Your task to perform on an android device: When is my next appointment? Image 0: 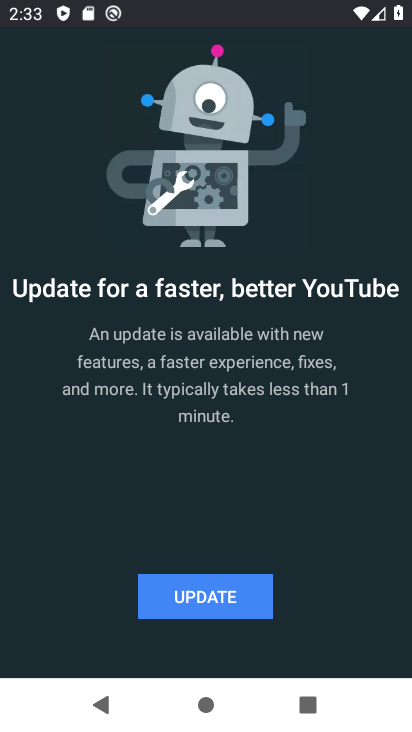
Step 0: press home button
Your task to perform on an android device: When is my next appointment? Image 1: 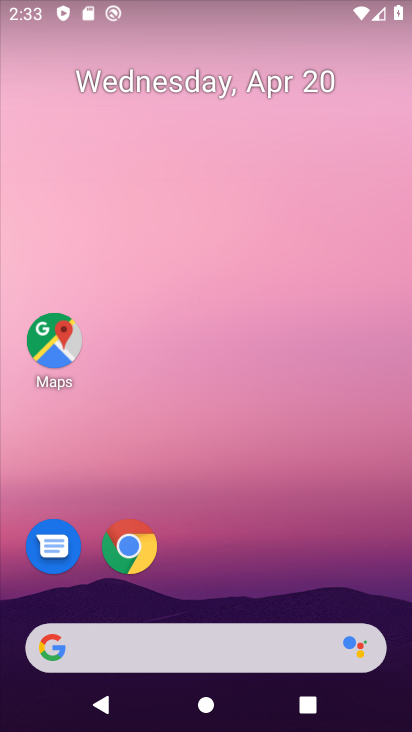
Step 1: drag from (289, 500) to (289, 108)
Your task to perform on an android device: When is my next appointment? Image 2: 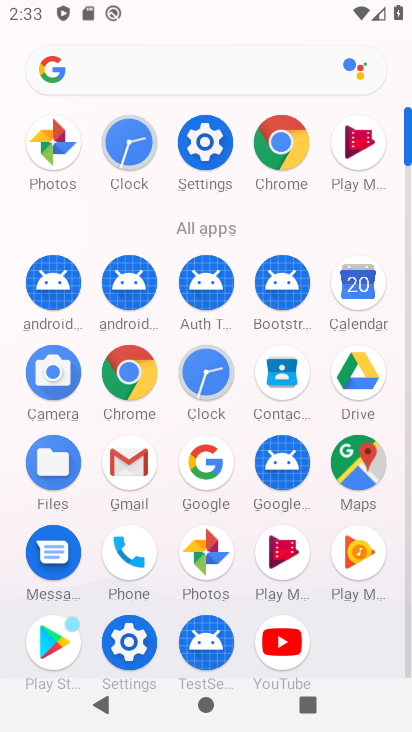
Step 2: click (354, 292)
Your task to perform on an android device: When is my next appointment? Image 3: 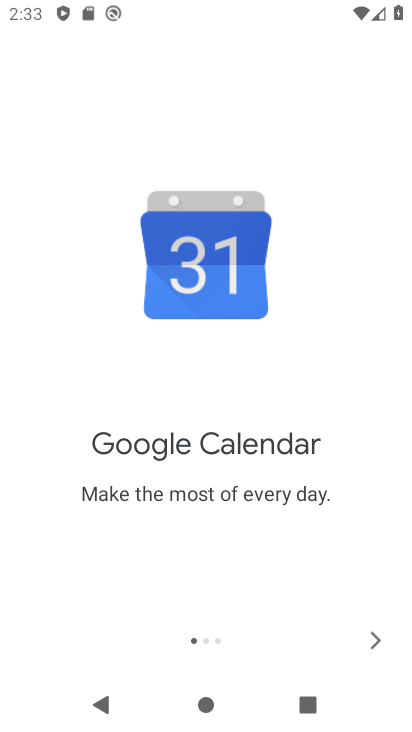
Step 3: click (373, 646)
Your task to perform on an android device: When is my next appointment? Image 4: 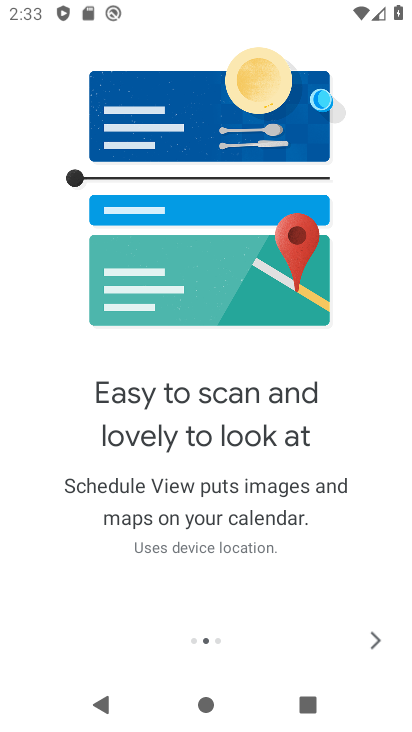
Step 4: click (373, 646)
Your task to perform on an android device: When is my next appointment? Image 5: 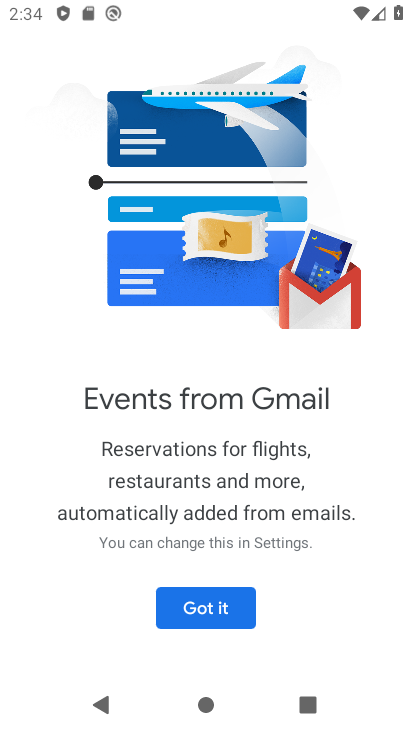
Step 5: click (180, 616)
Your task to perform on an android device: When is my next appointment? Image 6: 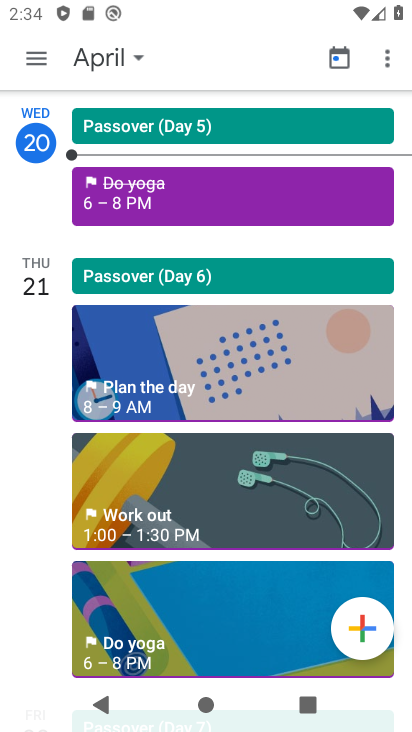
Step 6: click (126, 62)
Your task to perform on an android device: When is my next appointment? Image 7: 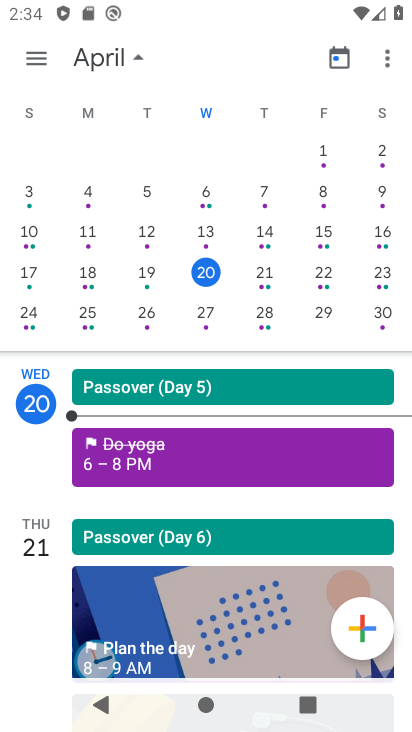
Step 7: click (261, 281)
Your task to perform on an android device: When is my next appointment? Image 8: 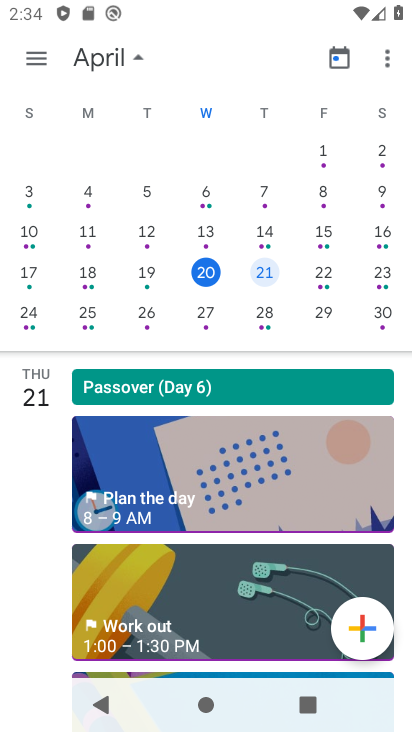
Step 8: click (321, 284)
Your task to perform on an android device: When is my next appointment? Image 9: 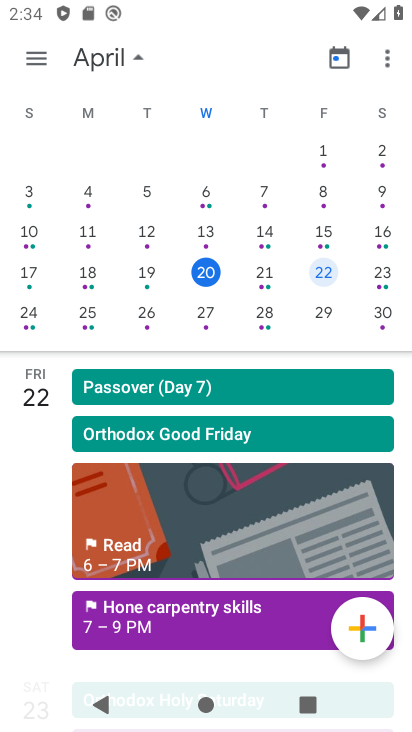
Step 9: click (380, 280)
Your task to perform on an android device: When is my next appointment? Image 10: 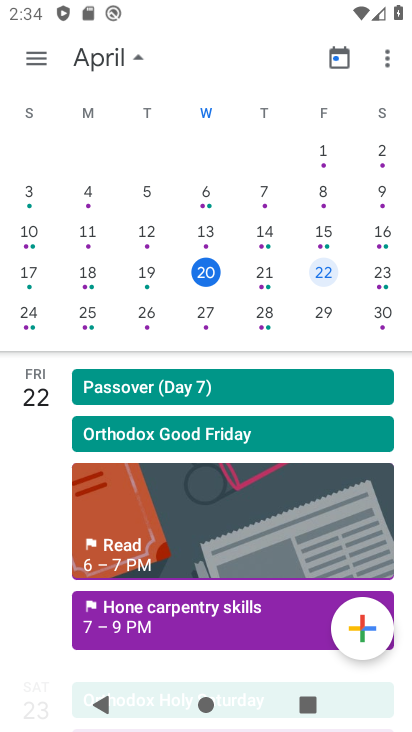
Step 10: click (26, 316)
Your task to perform on an android device: When is my next appointment? Image 11: 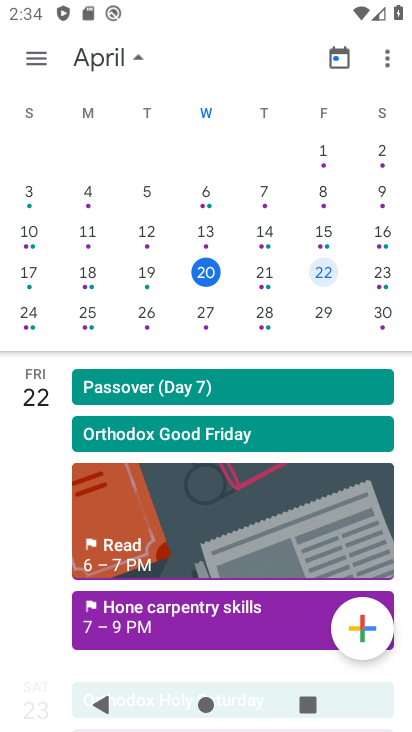
Step 11: click (92, 321)
Your task to perform on an android device: When is my next appointment? Image 12: 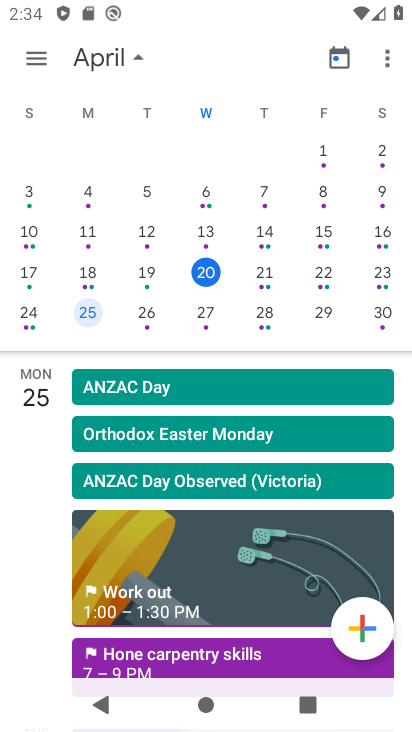
Step 12: click (155, 322)
Your task to perform on an android device: When is my next appointment? Image 13: 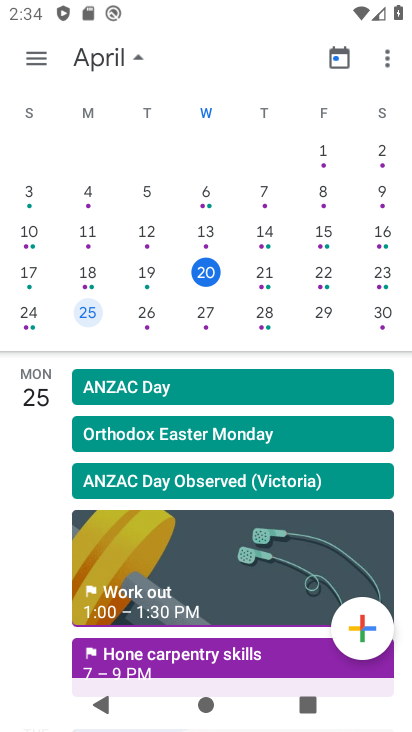
Step 13: click (219, 319)
Your task to perform on an android device: When is my next appointment? Image 14: 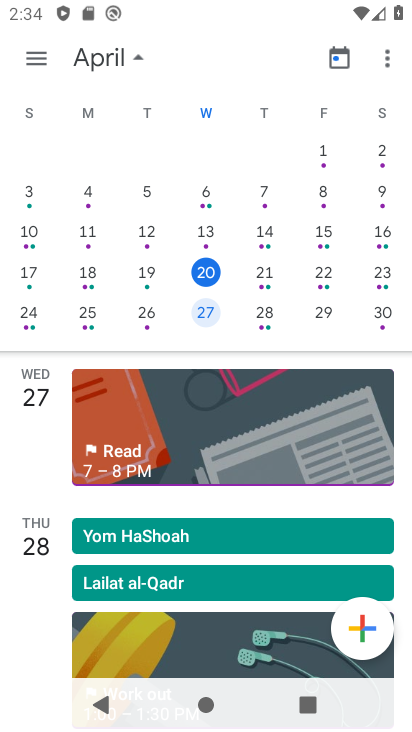
Step 14: click (260, 319)
Your task to perform on an android device: When is my next appointment? Image 15: 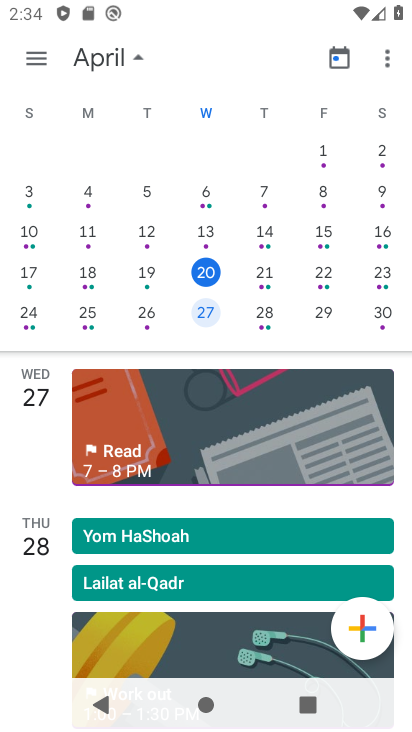
Step 15: click (328, 321)
Your task to perform on an android device: When is my next appointment? Image 16: 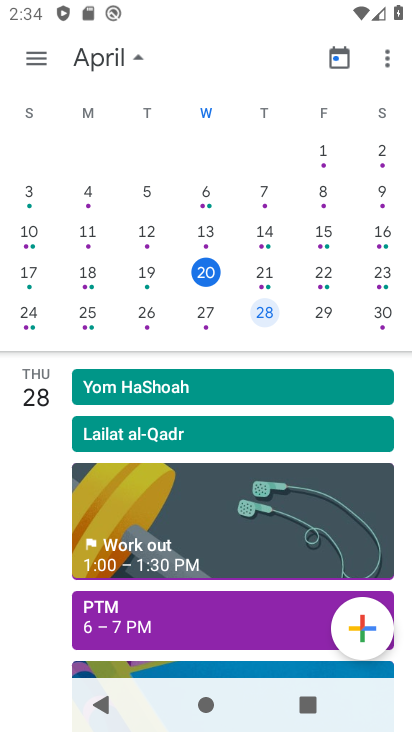
Step 16: click (377, 324)
Your task to perform on an android device: When is my next appointment? Image 17: 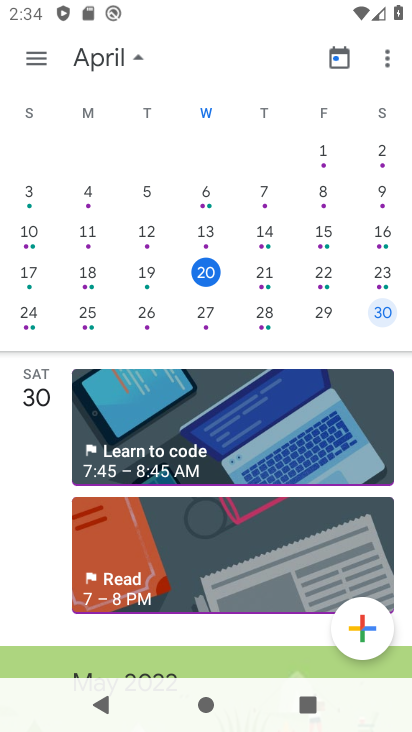
Step 17: task complete